Your task to perform on an android device: turn on airplane mode Image 0: 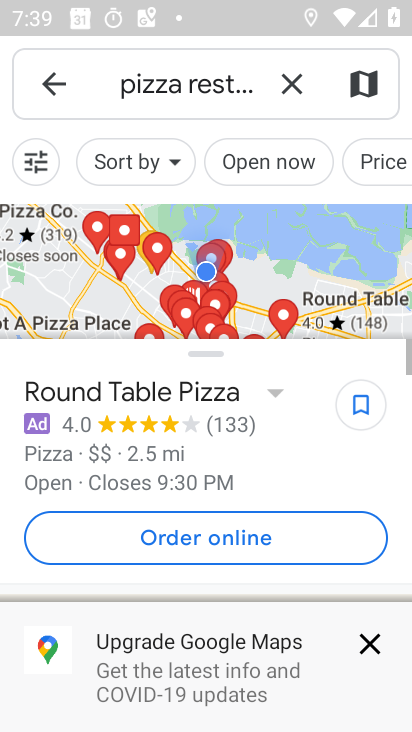
Step 0: press home button
Your task to perform on an android device: turn on airplane mode Image 1: 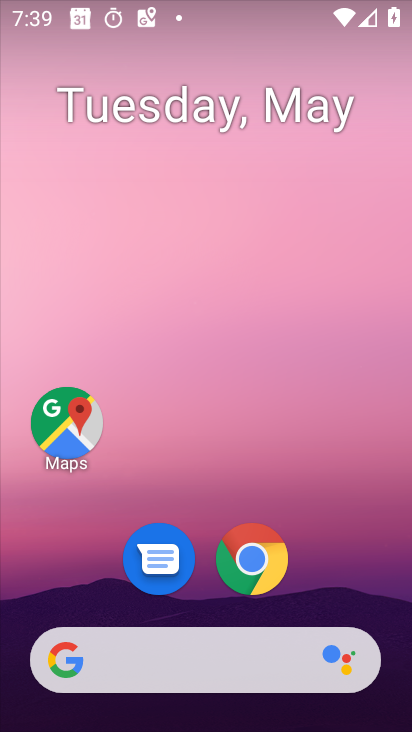
Step 1: drag from (270, 10) to (336, 476)
Your task to perform on an android device: turn on airplane mode Image 2: 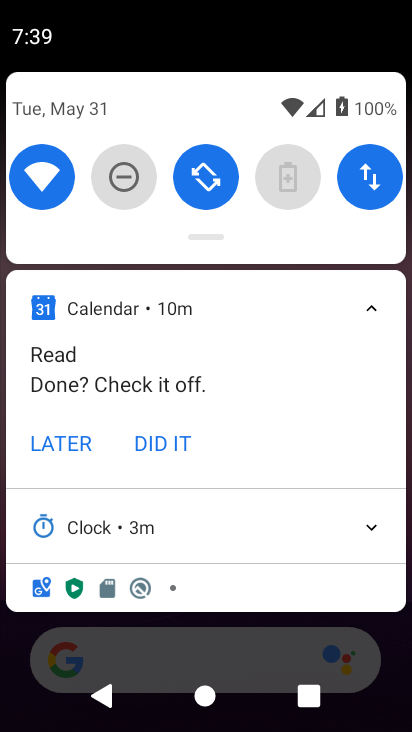
Step 2: drag from (268, 232) to (276, 604)
Your task to perform on an android device: turn on airplane mode Image 3: 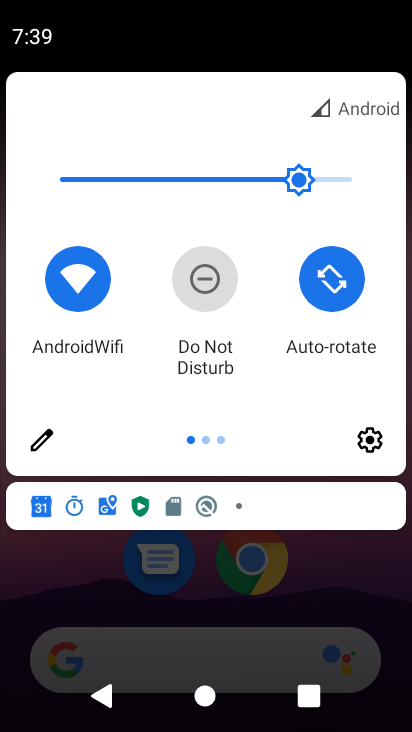
Step 3: drag from (336, 365) to (88, 338)
Your task to perform on an android device: turn on airplane mode Image 4: 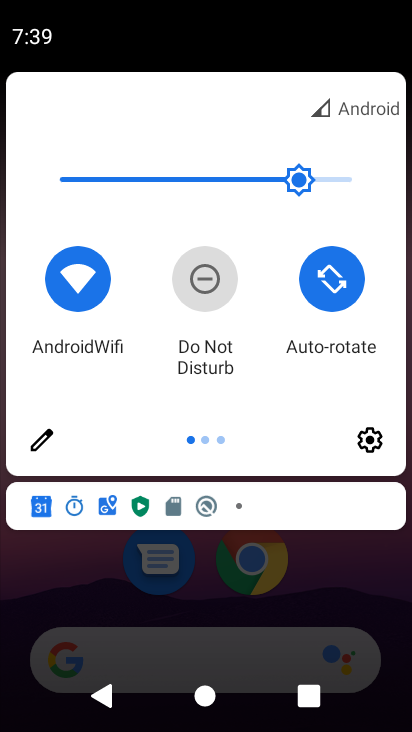
Step 4: drag from (369, 328) to (84, 339)
Your task to perform on an android device: turn on airplane mode Image 5: 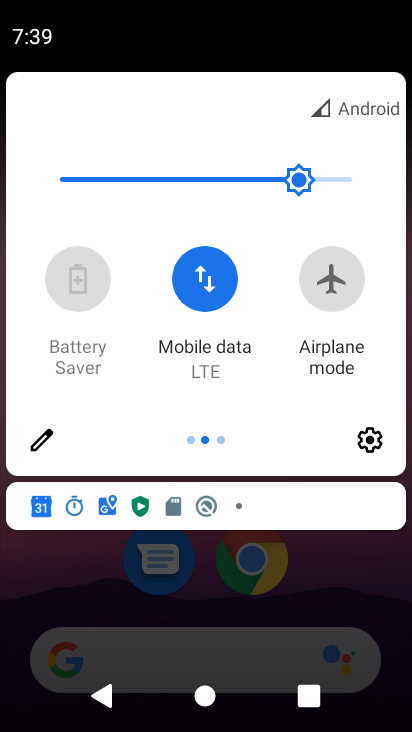
Step 5: click (327, 287)
Your task to perform on an android device: turn on airplane mode Image 6: 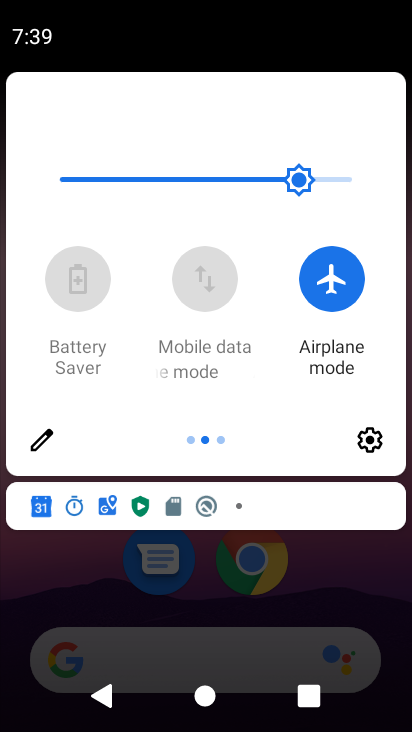
Step 6: task complete